Your task to perform on an android device: Search for pizza restaurants on Maps Image 0: 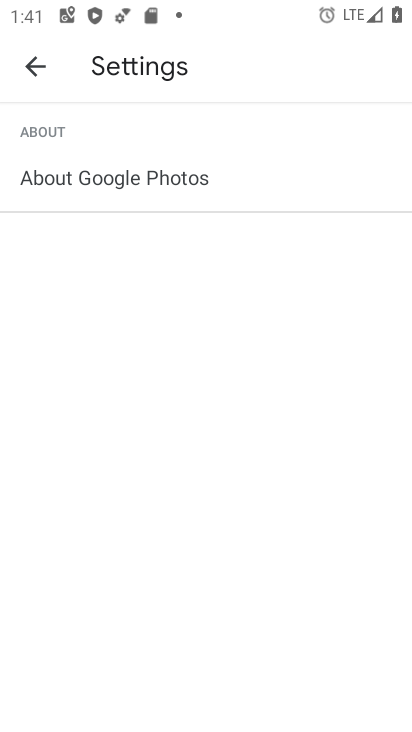
Step 0: press home button
Your task to perform on an android device: Search for pizza restaurants on Maps Image 1: 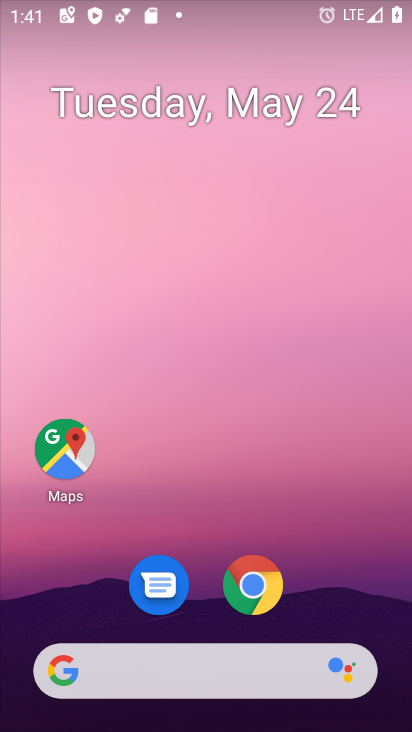
Step 1: click (72, 448)
Your task to perform on an android device: Search for pizza restaurants on Maps Image 2: 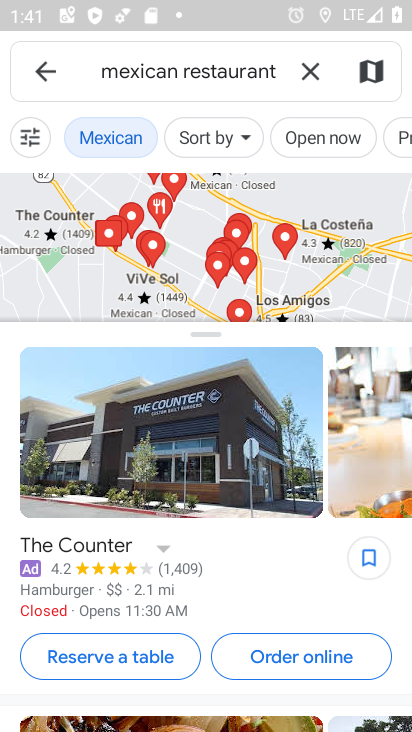
Step 2: click (309, 67)
Your task to perform on an android device: Search for pizza restaurants on Maps Image 3: 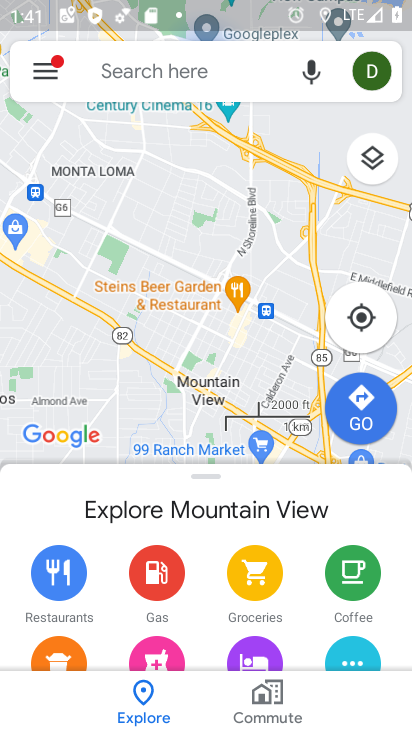
Step 3: click (225, 73)
Your task to perform on an android device: Search for pizza restaurants on Maps Image 4: 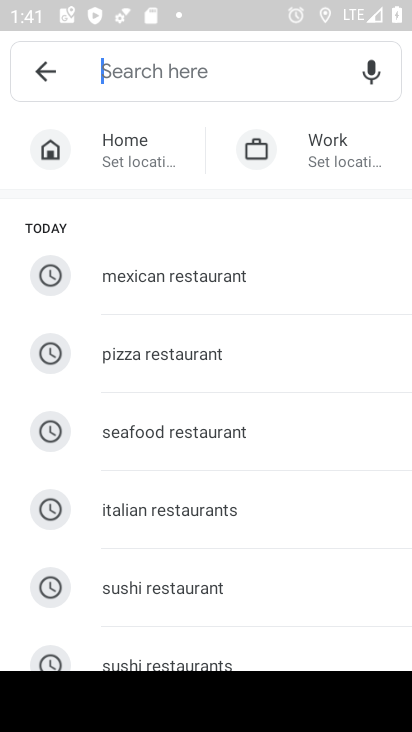
Step 4: click (178, 350)
Your task to perform on an android device: Search for pizza restaurants on Maps Image 5: 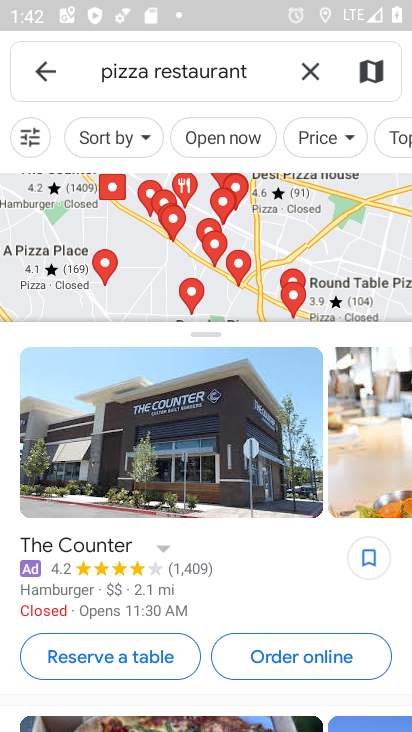
Step 5: task complete